Your task to perform on an android device: check android version Image 0: 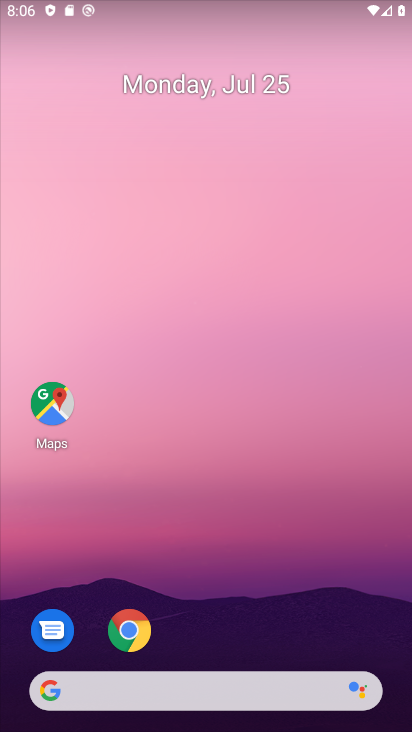
Step 0: drag from (43, 646) to (189, 250)
Your task to perform on an android device: check android version Image 1: 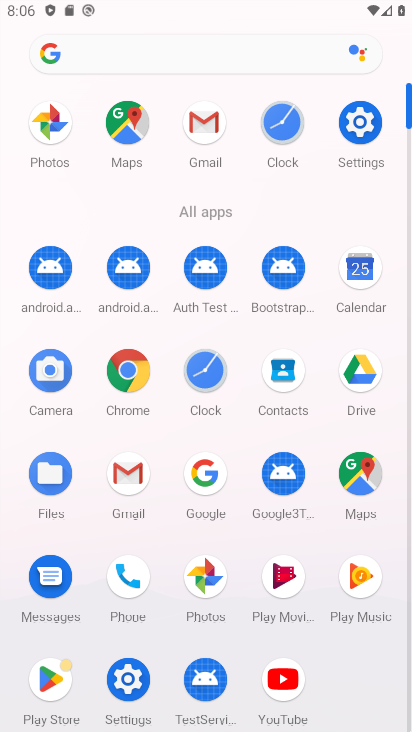
Step 1: click (136, 681)
Your task to perform on an android device: check android version Image 2: 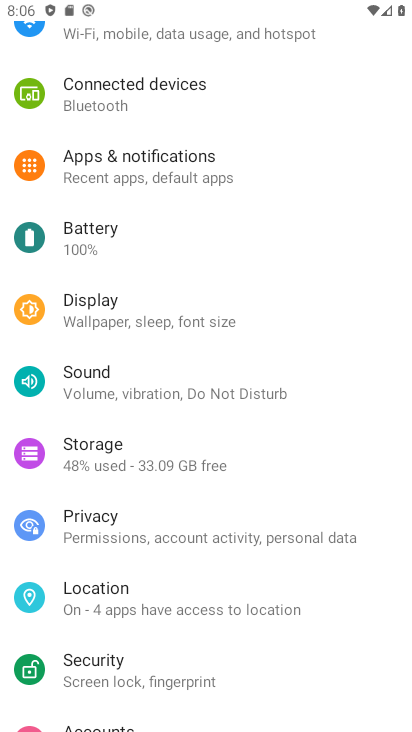
Step 2: drag from (239, 682) to (319, 50)
Your task to perform on an android device: check android version Image 3: 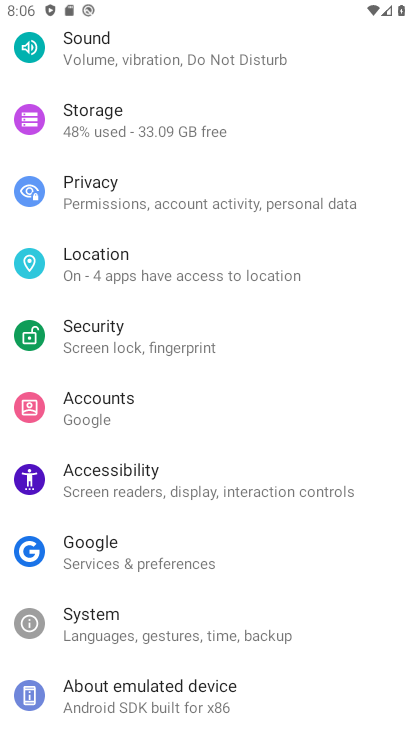
Step 3: click (152, 698)
Your task to perform on an android device: check android version Image 4: 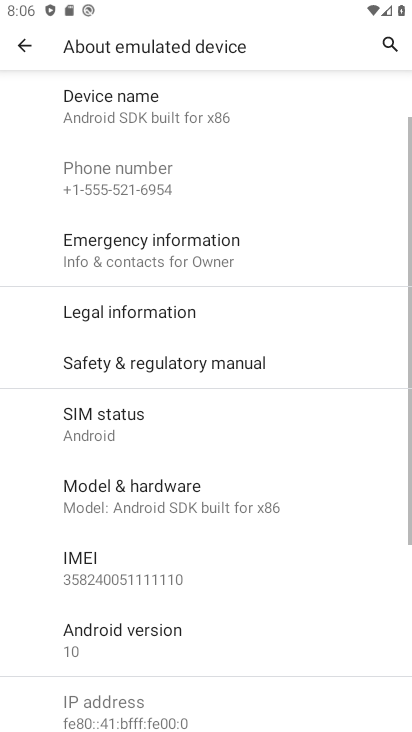
Step 4: click (90, 649)
Your task to perform on an android device: check android version Image 5: 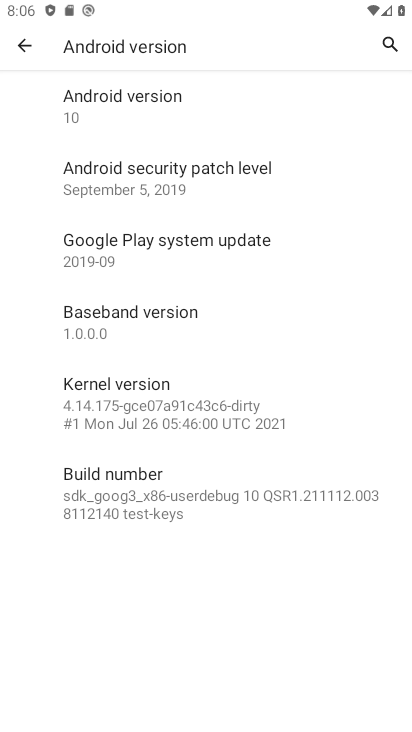
Step 5: task complete